Your task to perform on an android device: Find coffee shops on Maps Image 0: 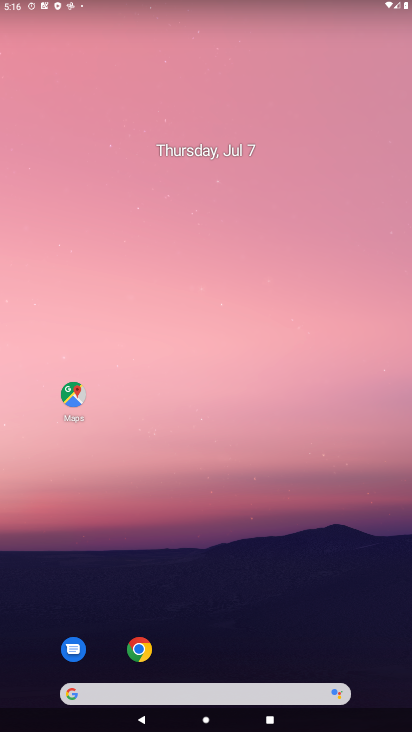
Step 0: drag from (367, 596) to (176, 24)
Your task to perform on an android device: Find coffee shops on Maps Image 1: 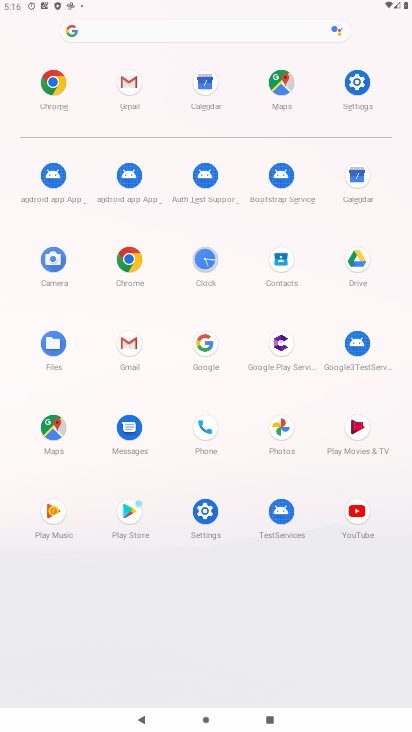
Step 1: click (55, 441)
Your task to perform on an android device: Find coffee shops on Maps Image 2: 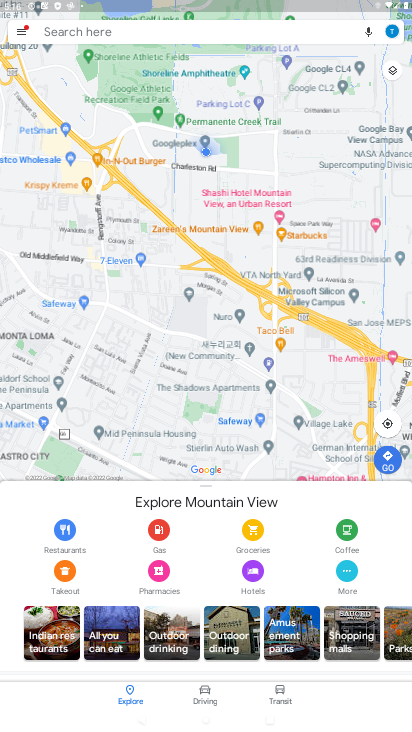
Step 2: click (126, 34)
Your task to perform on an android device: Find coffee shops on Maps Image 3: 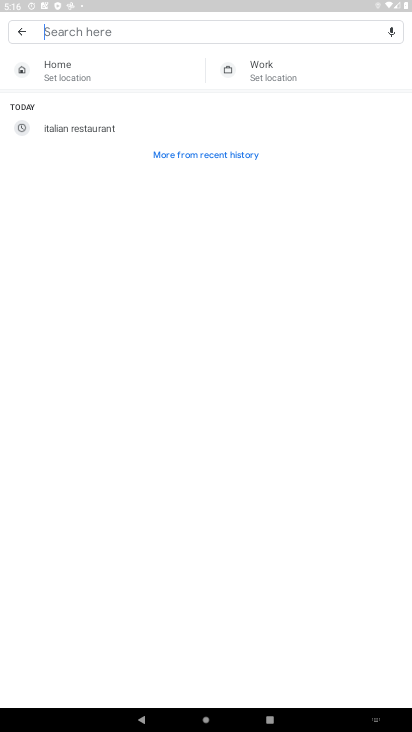
Step 3: type " coffee"
Your task to perform on an android device: Find coffee shops on Maps Image 4: 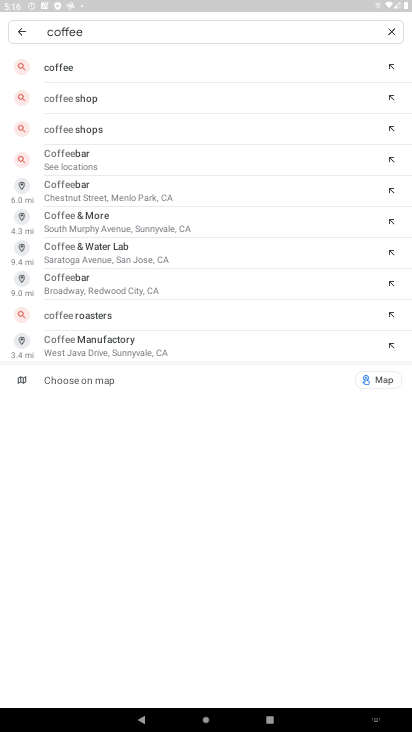
Step 4: click (115, 70)
Your task to perform on an android device: Find coffee shops on Maps Image 5: 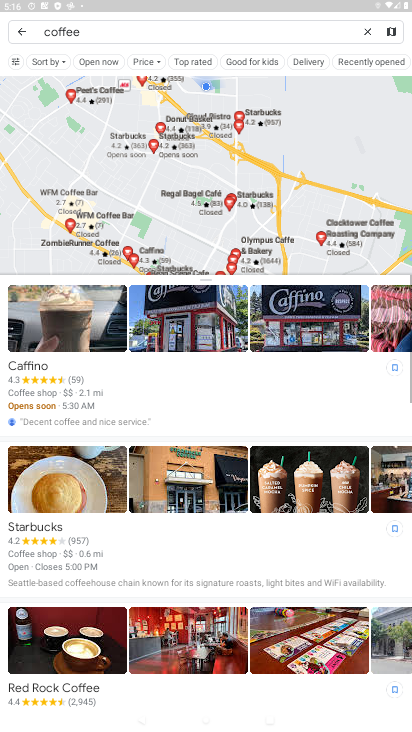
Step 5: task complete